Your task to perform on an android device: Open Chrome and go to the settings page Image 0: 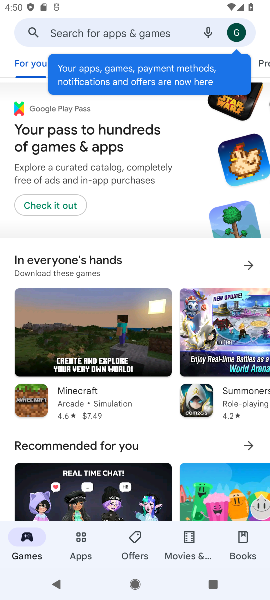
Step 0: press home button
Your task to perform on an android device: Open Chrome and go to the settings page Image 1: 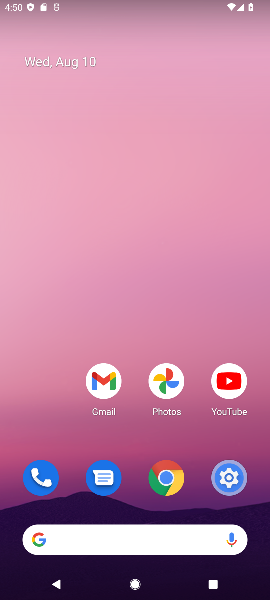
Step 1: click (157, 476)
Your task to perform on an android device: Open Chrome and go to the settings page Image 2: 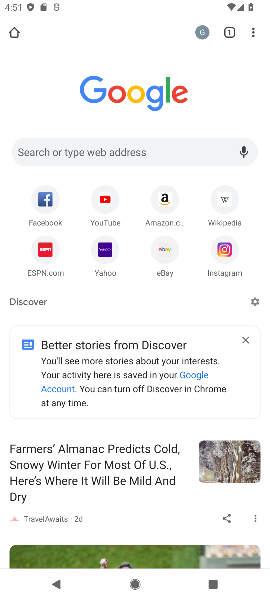
Step 2: click (249, 35)
Your task to perform on an android device: Open Chrome and go to the settings page Image 3: 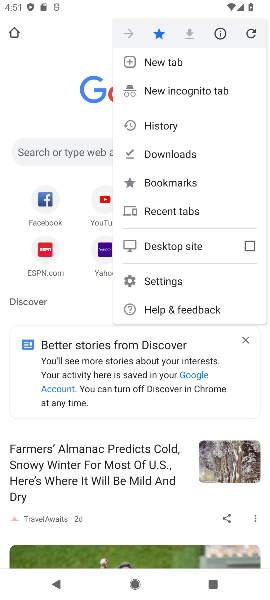
Step 3: click (174, 278)
Your task to perform on an android device: Open Chrome and go to the settings page Image 4: 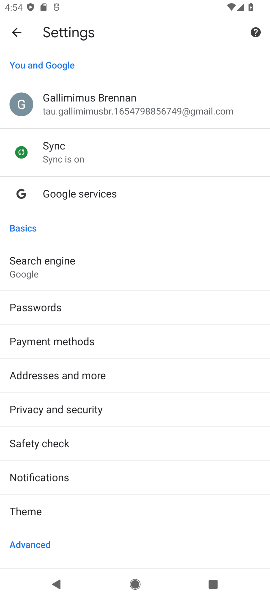
Step 4: task complete